Your task to perform on an android device: Go to Maps Image 0: 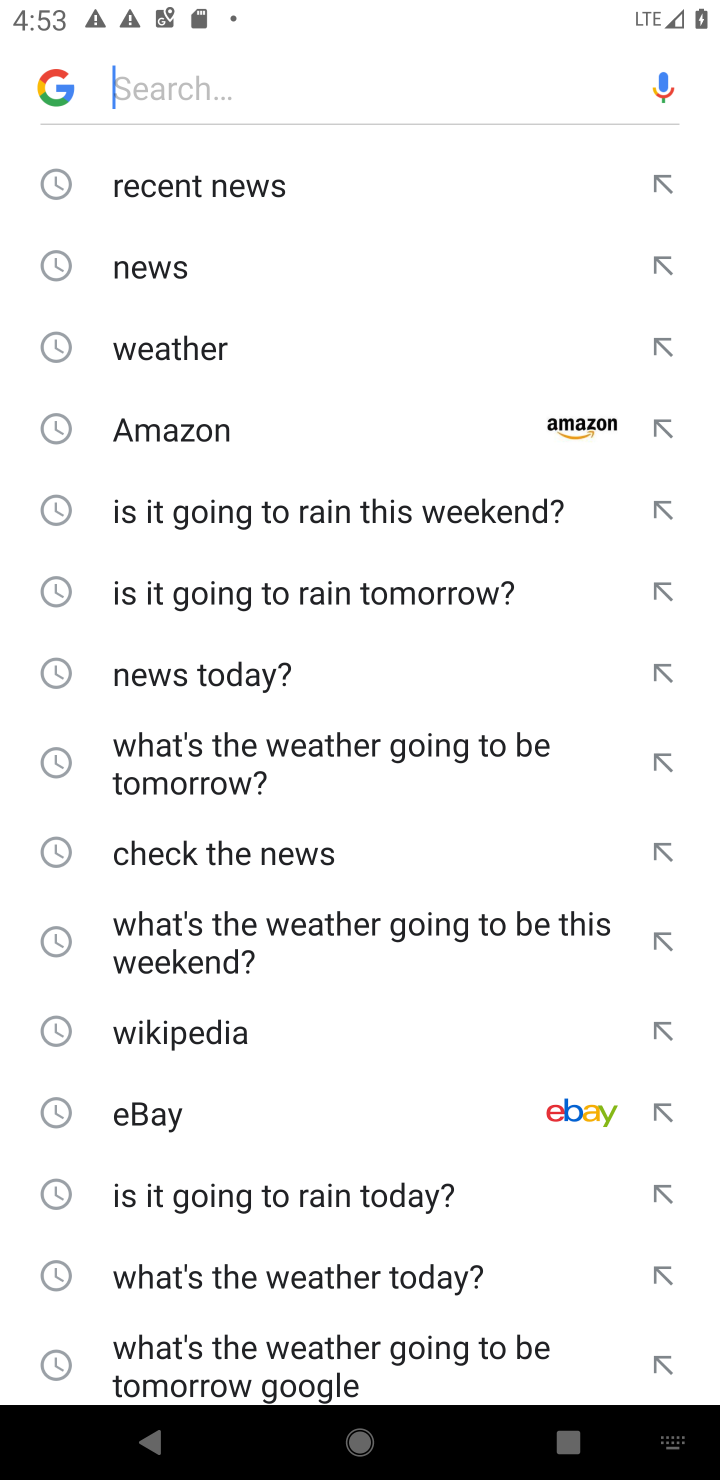
Step 0: press home button
Your task to perform on an android device: Go to Maps Image 1: 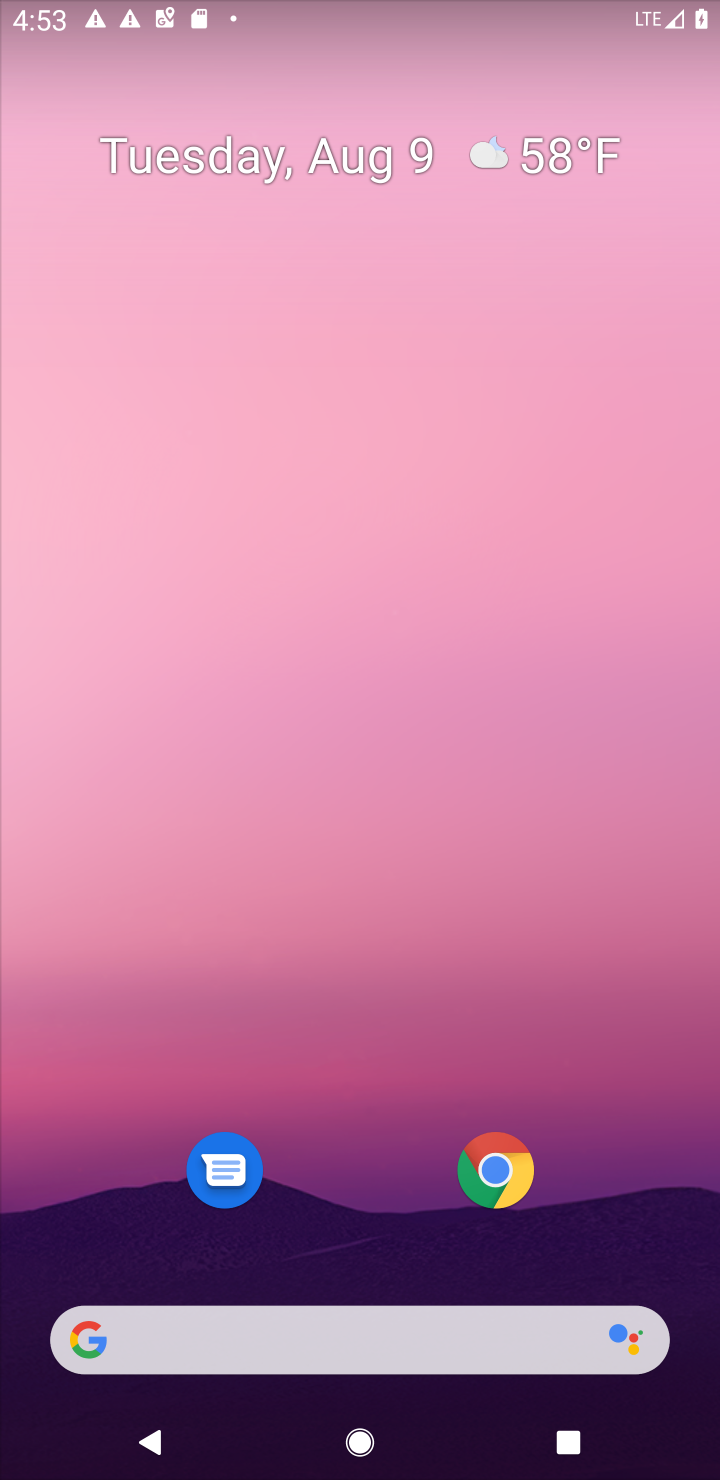
Step 1: click (97, 1351)
Your task to perform on an android device: Go to Maps Image 2: 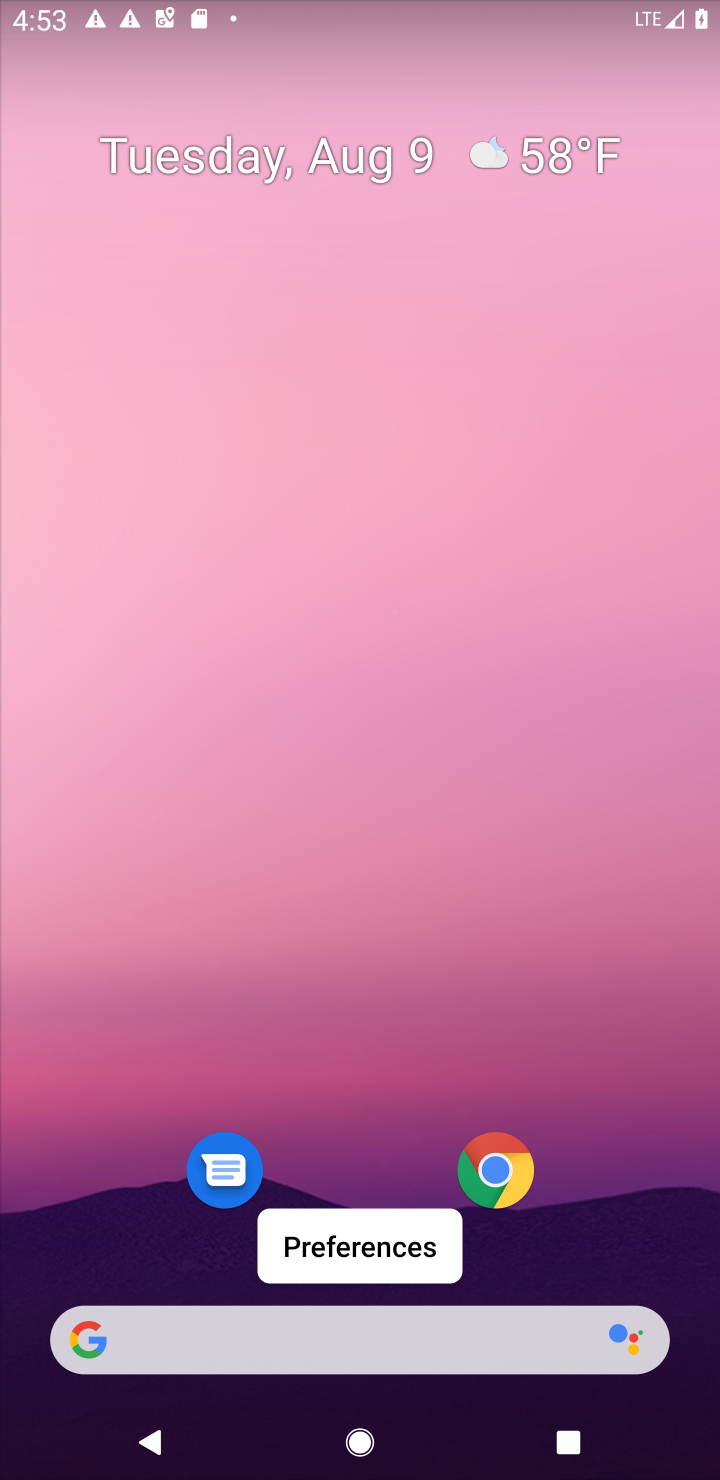
Step 2: drag from (556, 697) to (561, 126)
Your task to perform on an android device: Go to Maps Image 3: 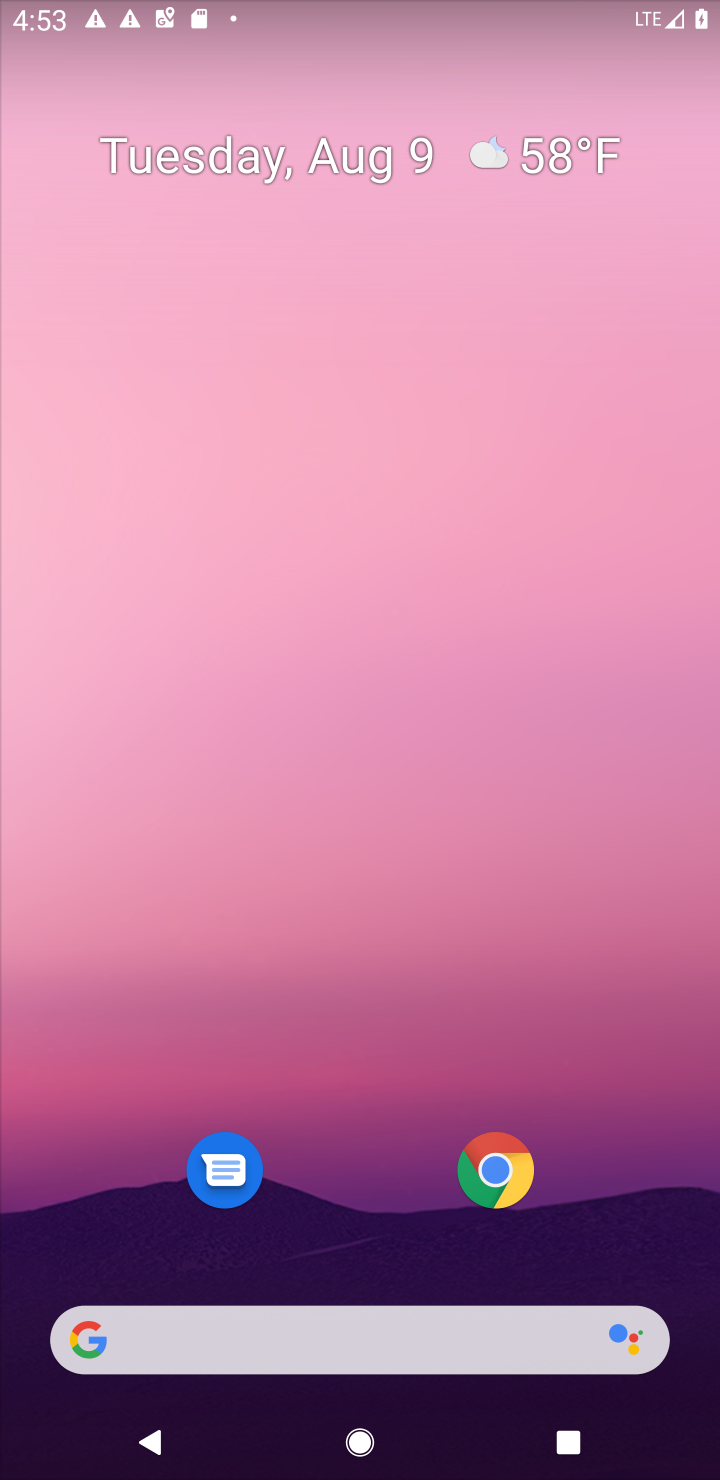
Step 3: drag from (363, 1245) to (498, 27)
Your task to perform on an android device: Go to Maps Image 4: 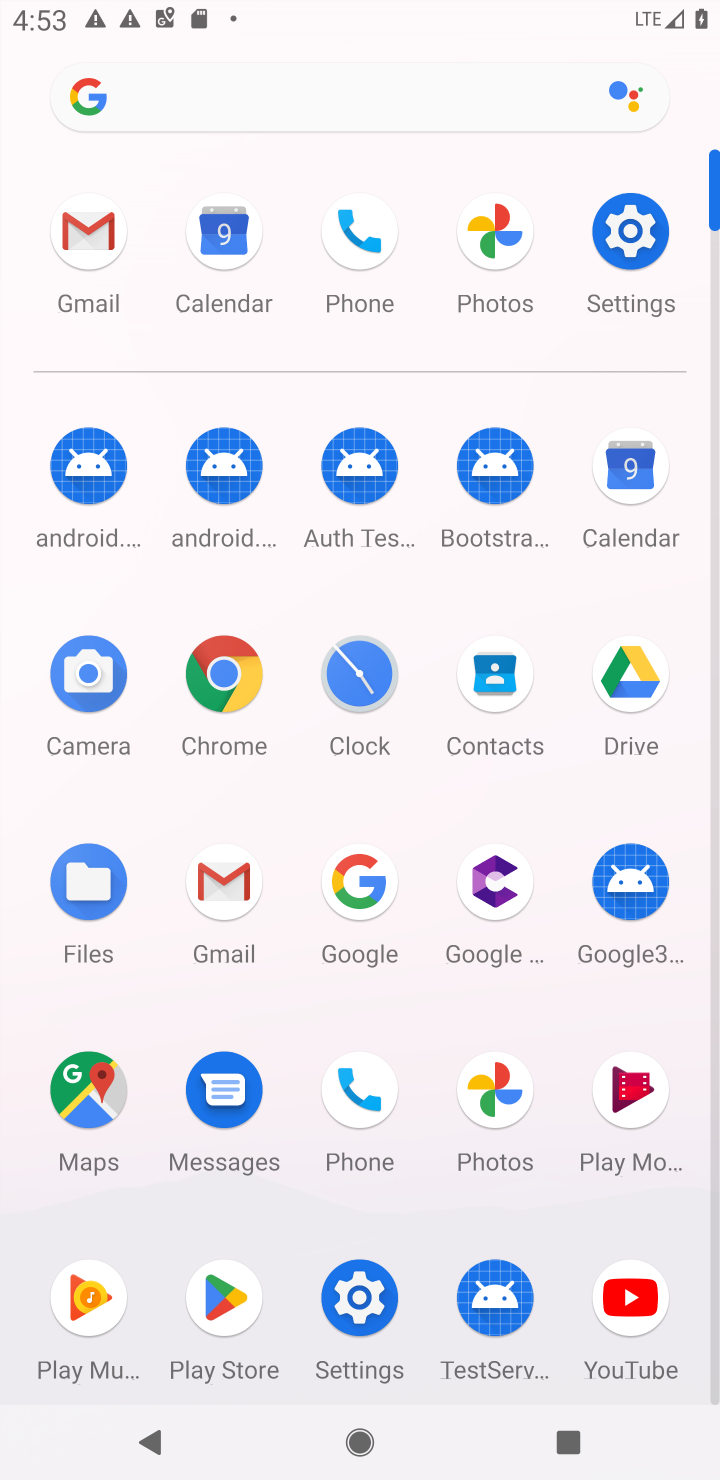
Step 4: click (91, 1101)
Your task to perform on an android device: Go to Maps Image 5: 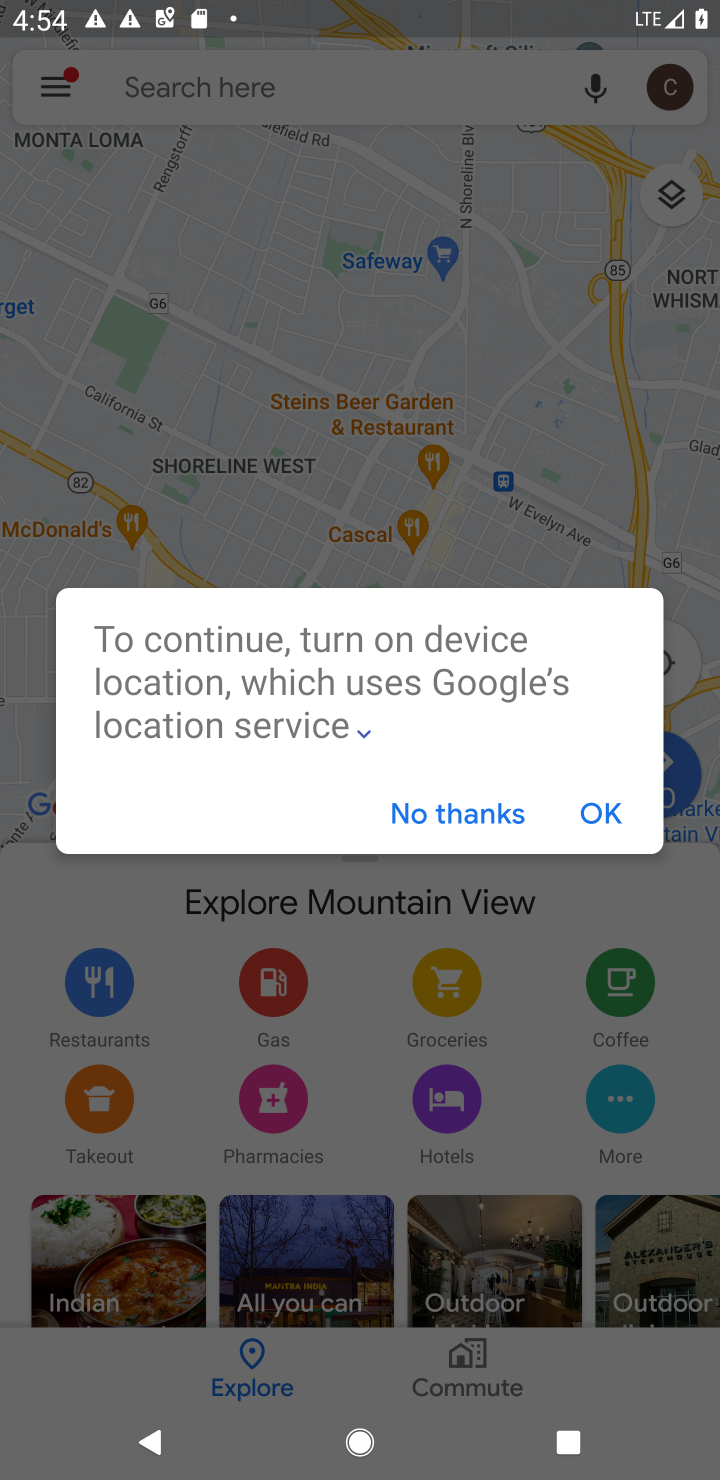
Step 5: click (626, 816)
Your task to perform on an android device: Go to Maps Image 6: 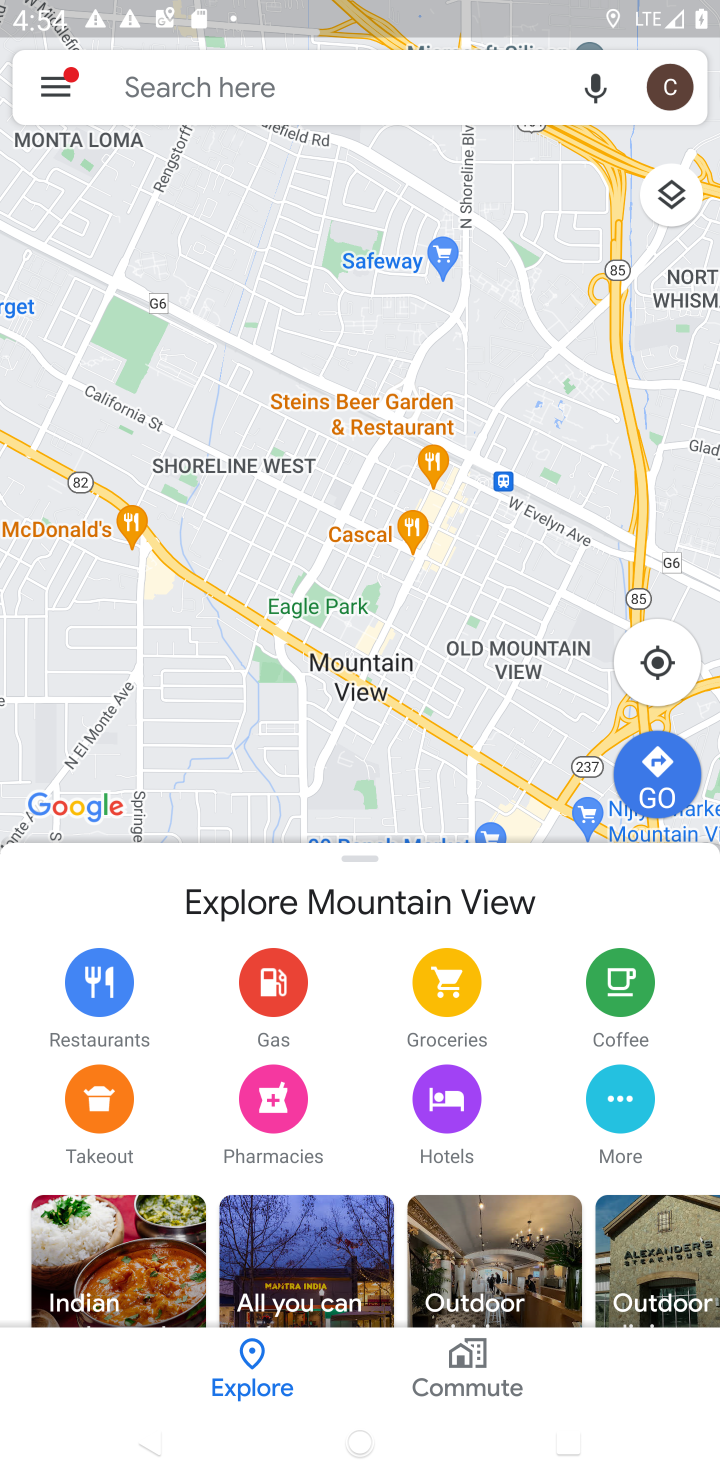
Step 6: task complete